Your task to perform on an android device: Open Yahoo.com Image 0: 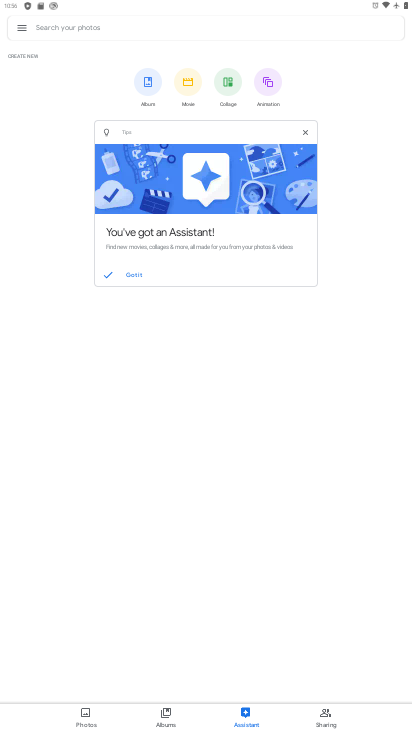
Step 0: press home button
Your task to perform on an android device: Open Yahoo.com Image 1: 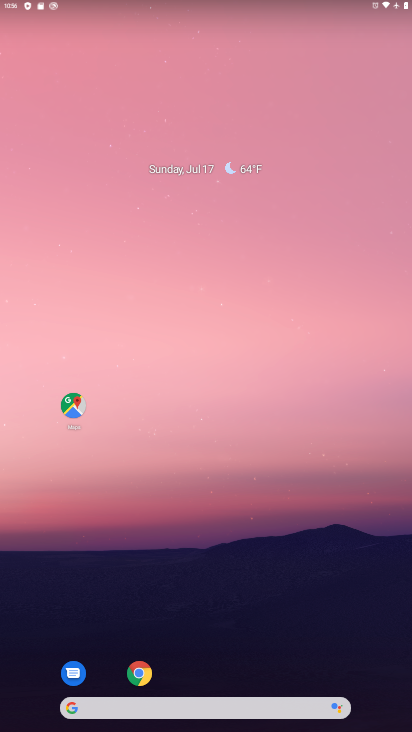
Step 1: click (142, 669)
Your task to perform on an android device: Open Yahoo.com Image 2: 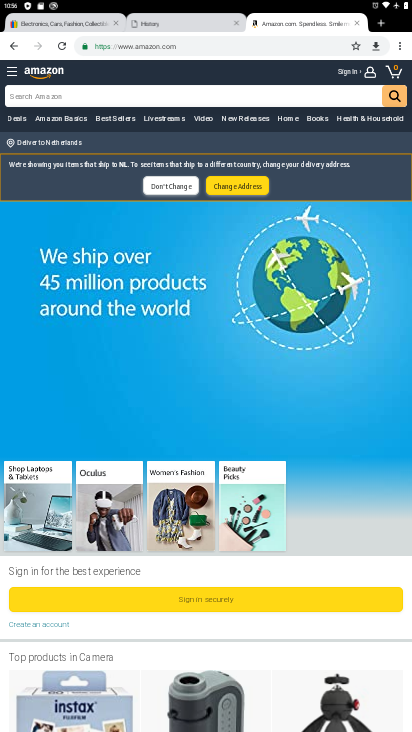
Step 2: click (256, 44)
Your task to perform on an android device: Open Yahoo.com Image 3: 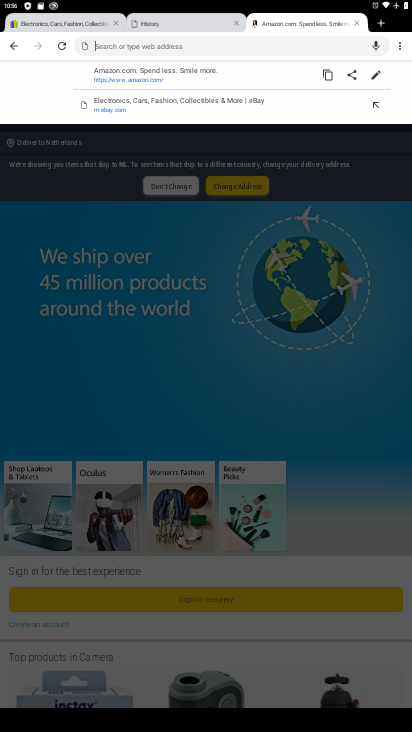
Step 3: type "yahoo.com"
Your task to perform on an android device: Open Yahoo.com Image 4: 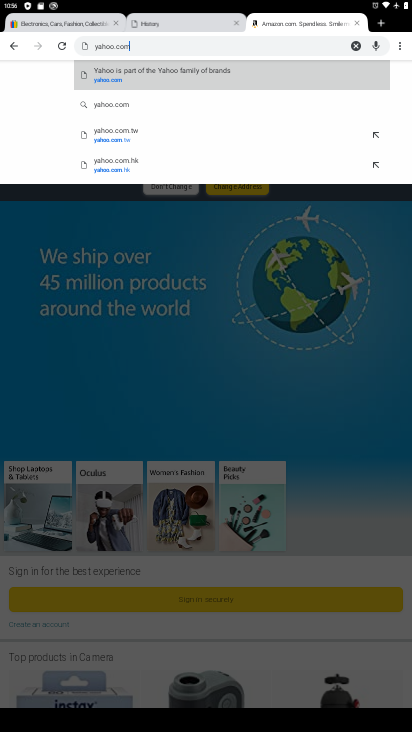
Step 4: click (127, 67)
Your task to perform on an android device: Open Yahoo.com Image 5: 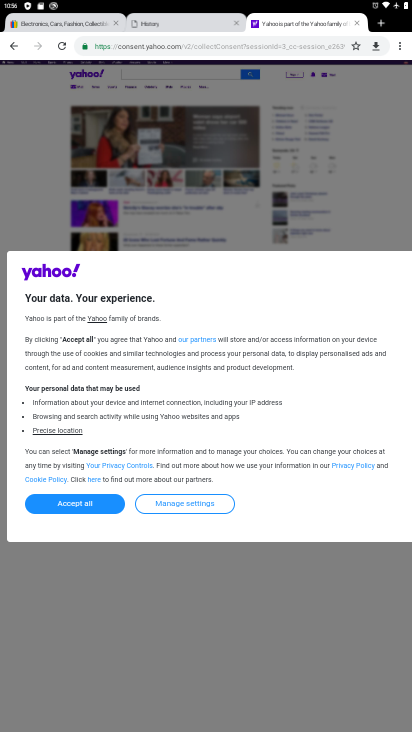
Step 5: task complete